Your task to perform on an android device: Open the map Image 0: 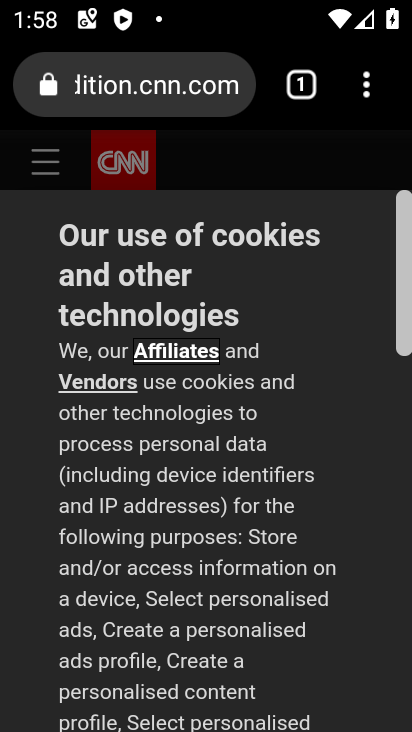
Step 0: press home button
Your task to perform on an android device: Open the map Image 1: 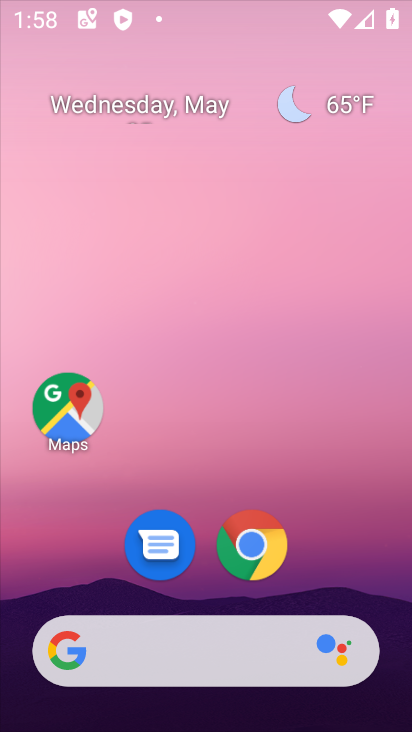
Step 1: drag from (88, 419) to (97, 106)
Your task to perform on an android device: Open the map Image 2: 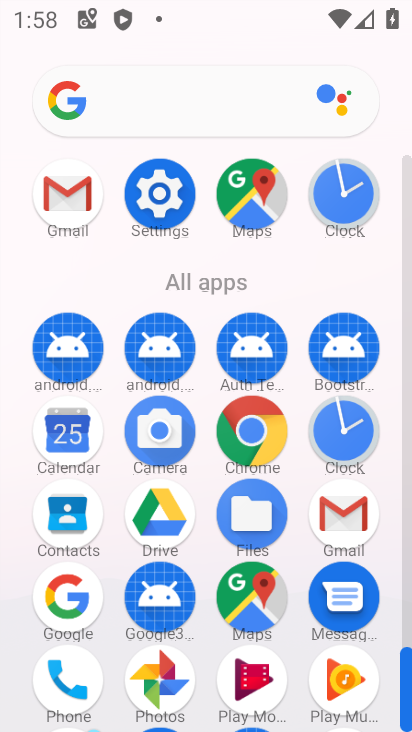
Step 2: click (253, 193)
Your task to perform on an android device: Open the map Image 3: 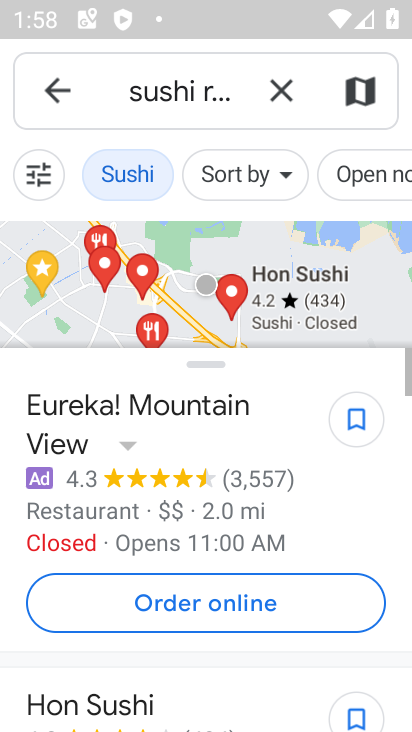
Step 3: task complete